Your task to perform on an android device: Open Youtube and go to "Your channel" Image 0: 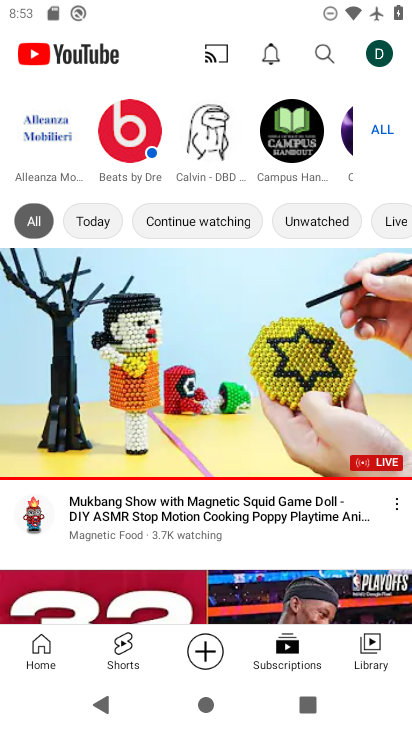
Step 0: press home button
Your task to perform on an android device: Open Youtube and go to "Your channel" Image 1: 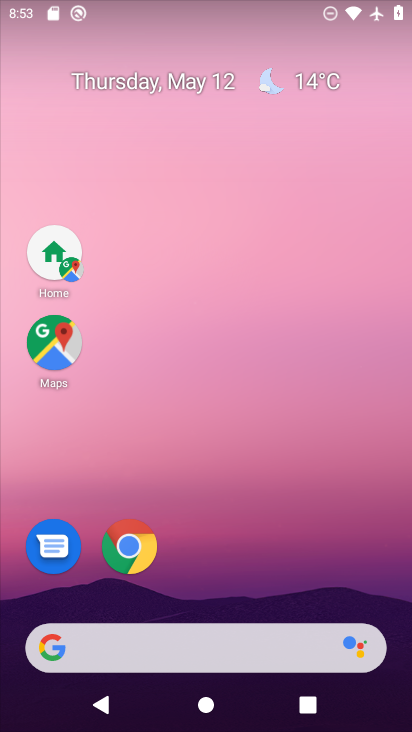
Step 1: drag from (231, 645) to (385, 142)
Your task to perform on an android device: Open Youtube and go to "Your channel" Image 2: 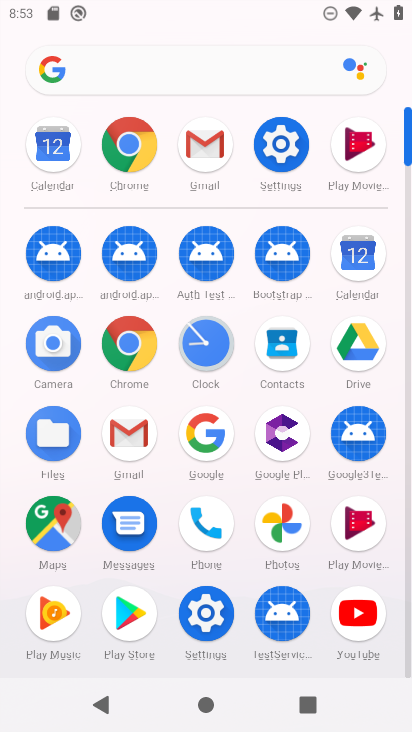
Step 2: click (356, 613)
Your task to perform on an android device: Open Youtube and go to "Your channel" Image 3: 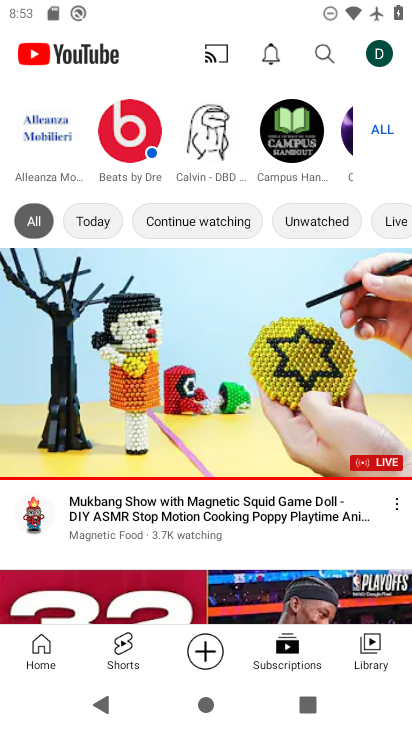
Step 3: click (382, 52)
Your task to perform on an android device: Open Youtube and go to "Your channel" Image 4: 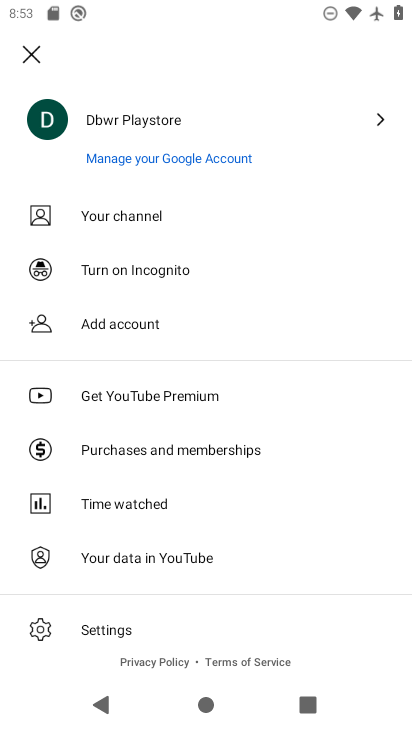
Step 4: click (149, 212)
Your task to perform on an android device: Open Youtube and go to "Your channel" Image 5: 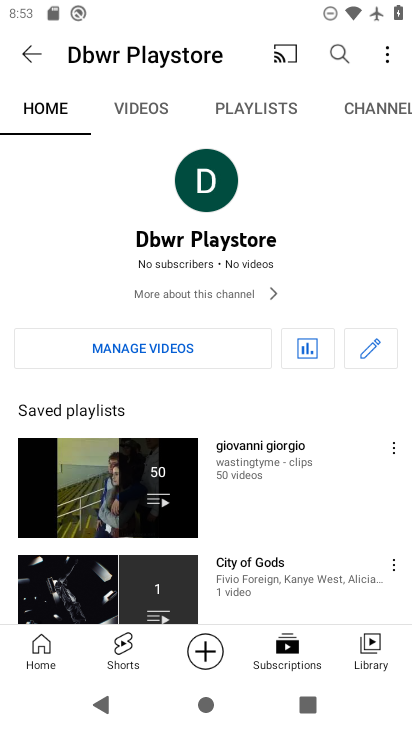
Step 5: task complete